Your task to perform on an android device: Search for pizza restaurants on Maps Image 0: 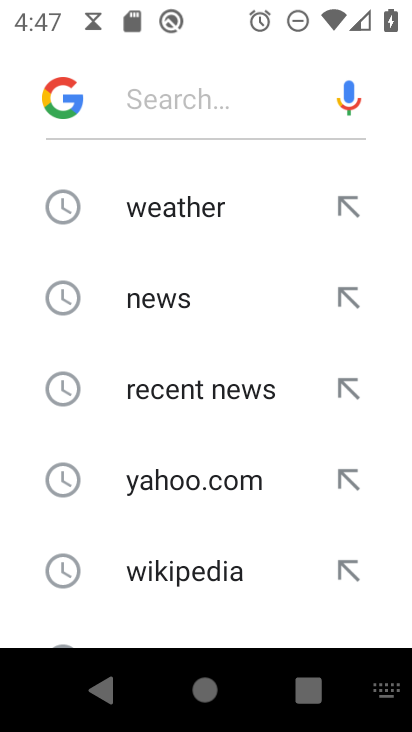
Step 0: press home button
Your task to perform on an android device: Search for pizza restaurants on Maps Image 1: 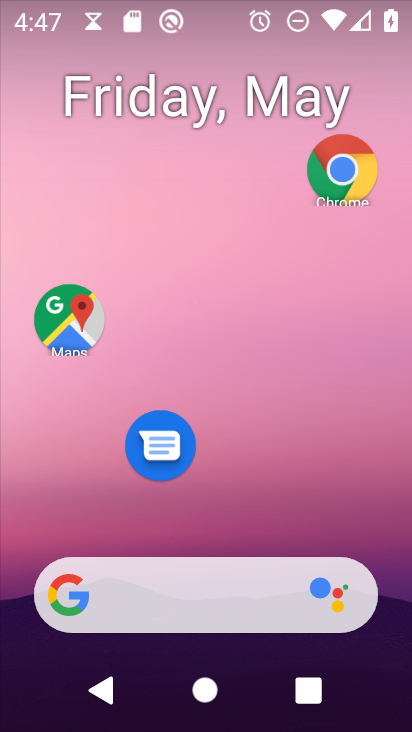
Step 1: click (74, 314)
Your task to perform on an android device: Search for pizza restaurants on Maps Image 2: 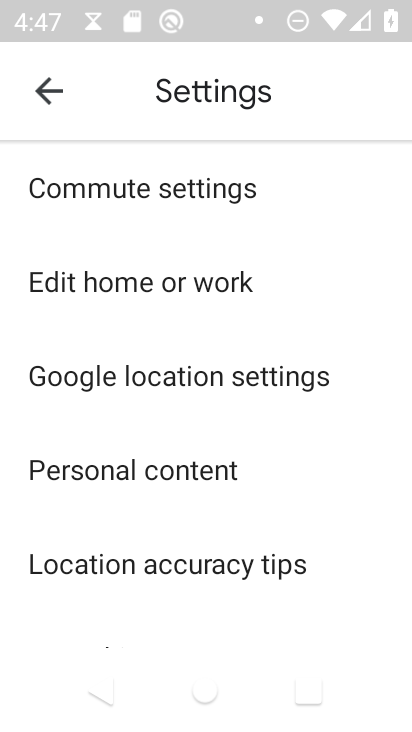
Step 2: click (52, 84)
Your task to perform on an android device: Search for pizza restaurants on Maps Image 3: 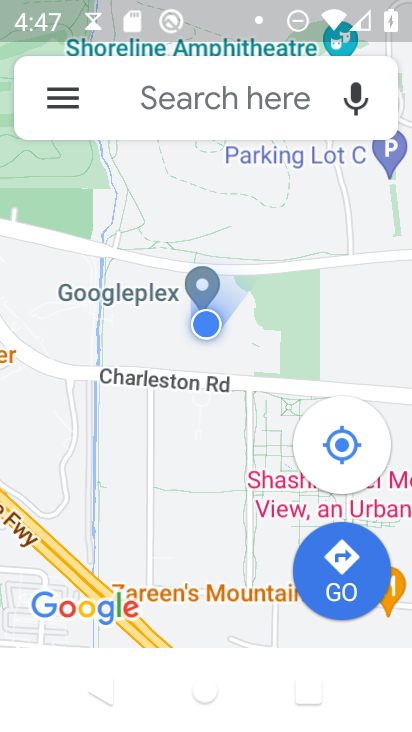
Step 3: click (225, 87)
Your task to perform on an android device: Search for pizza restaurants on Maps Image 4: 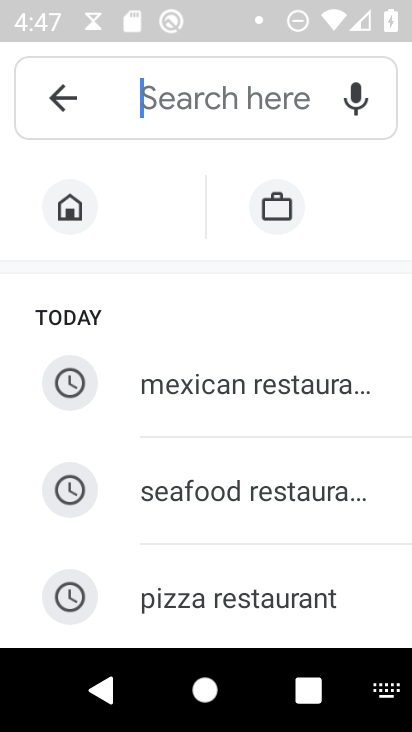
Step 4: click (234, 603)
Your task to perform on an android device: Search for pizza restaurants on Maps Image 5: 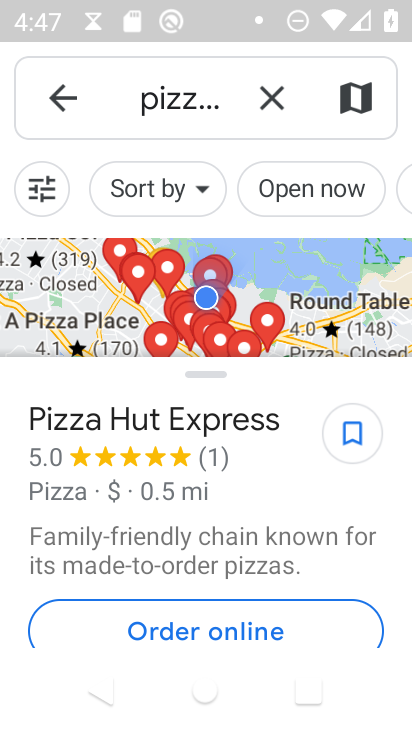
Step 5: task complete